Your task to perform on an android device: check android version Image 0: 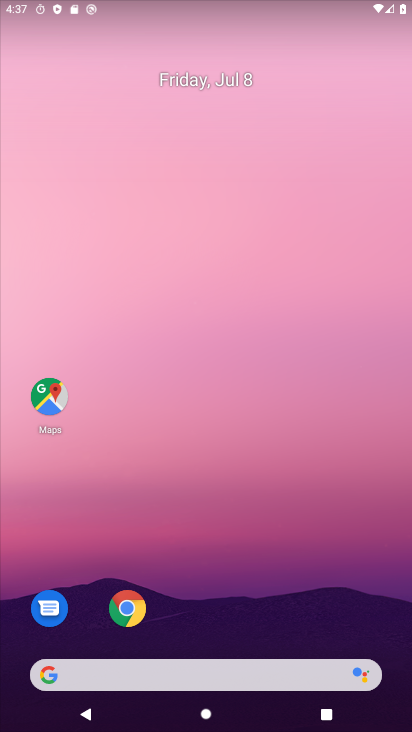
Step 0: drag from (250, 584) to (256, 50)
Your task to perform on an android device: check android version Image 1: 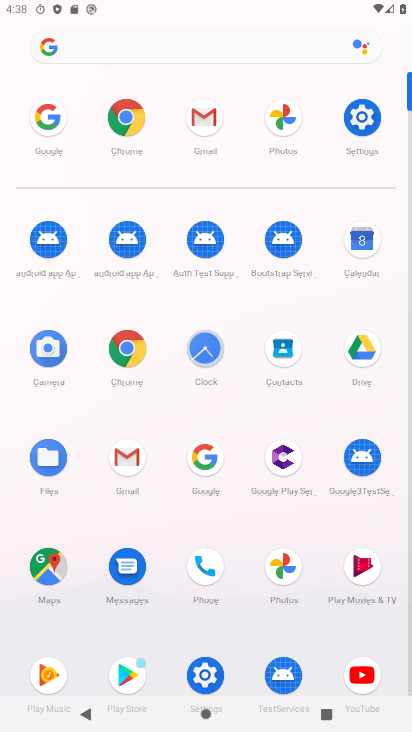
Step 1: click (357, 110)
Your task to perform on an android device: check android version Image 2: 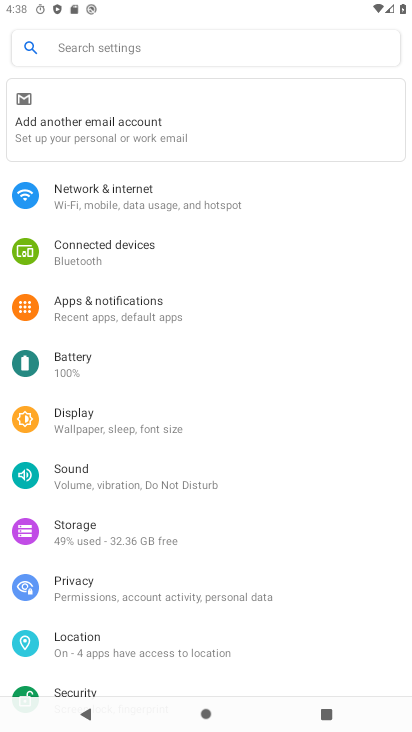
Step 2: drag from (156, 678) to (200, 50)
Your task to perform on an android device: check android version Image 3: 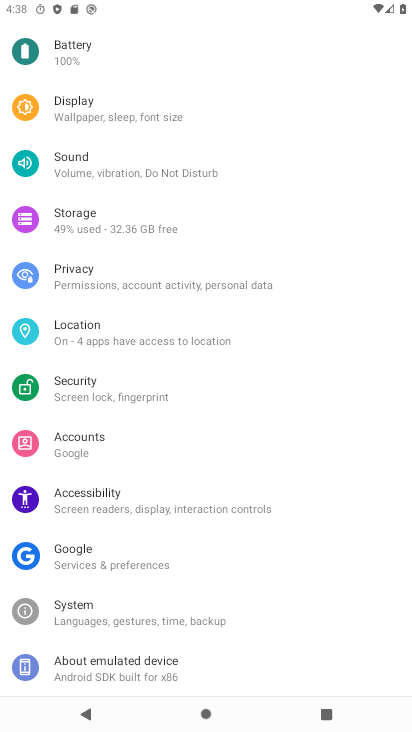
Step 3: click (112, 672)
Your task to perform on an android device: check android version Image 4: 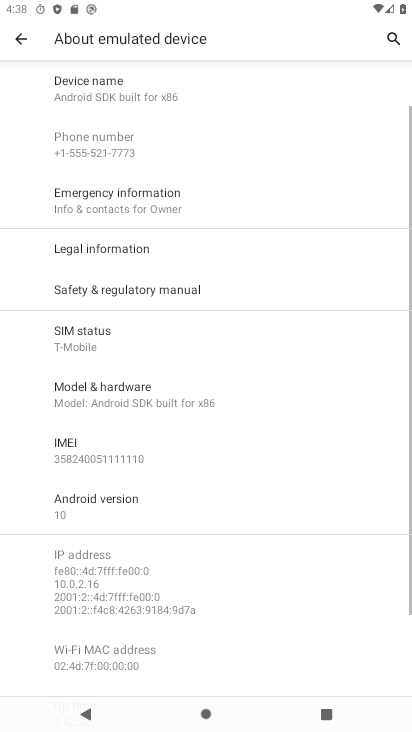
Step 4: click (83, 510)
Your task to perform on an android device: check android version Image 5: 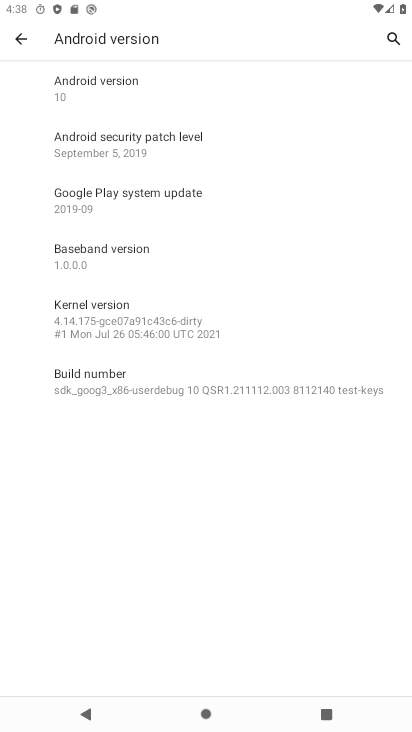
Step 5: task complete